Your task to perform on an android device: check out phone information Image 0: 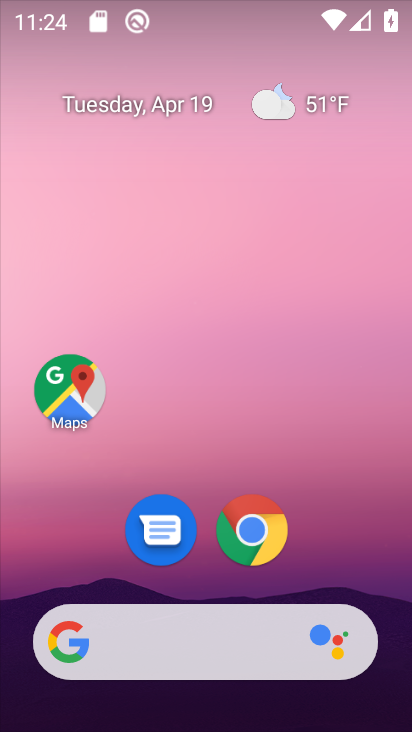
Step 0: drag from (183, 573) to (316, 0)
Your task to perform on an android device: check out phone information Image 1: 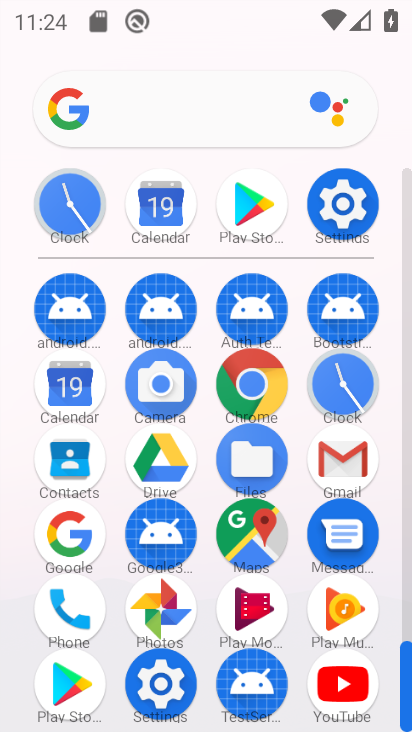
Step 1: click (340, 209)
Your task to perform on an android device: check out phone information Image 2: 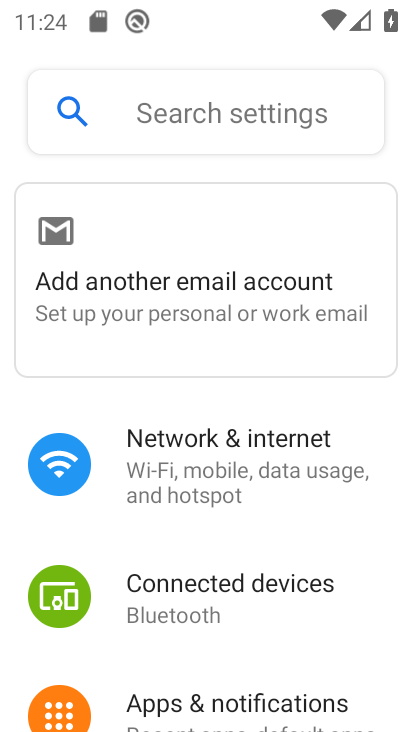
Step 2: drag from (214, 652) to (357, 179)
Your task to perform on an android device: check out phone information Image 3: 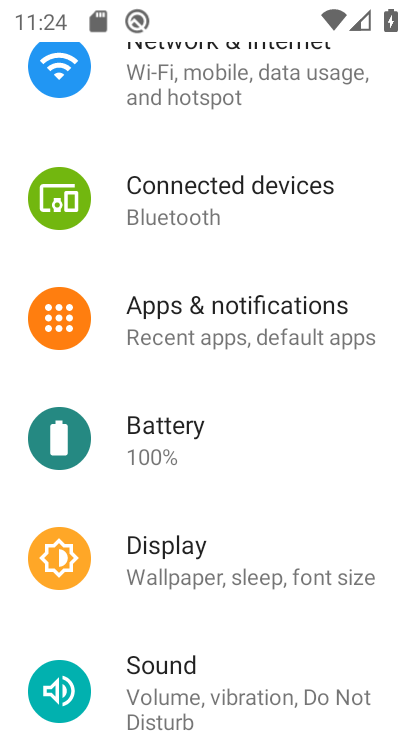
Step 3: drag from (254, 634) to (381, 142)
Your task to perform on an android device: check out phone information Image 4: 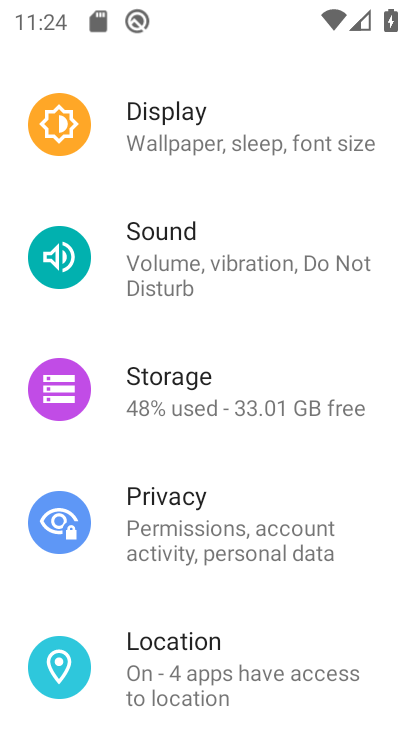
Step 4: drag from (248, 649) to (379, 167)
Your task to perform on an android device: check out phone information Image 5: 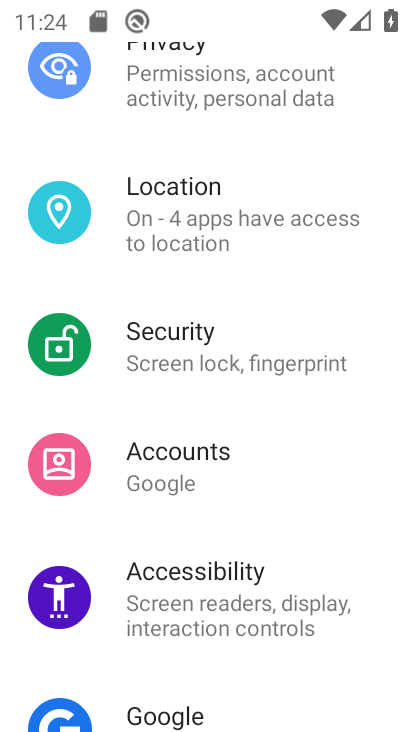
Step 5: drag from (290, 628) to (384, 288)
Your task to perform on an android device: check out phone information Image 6: 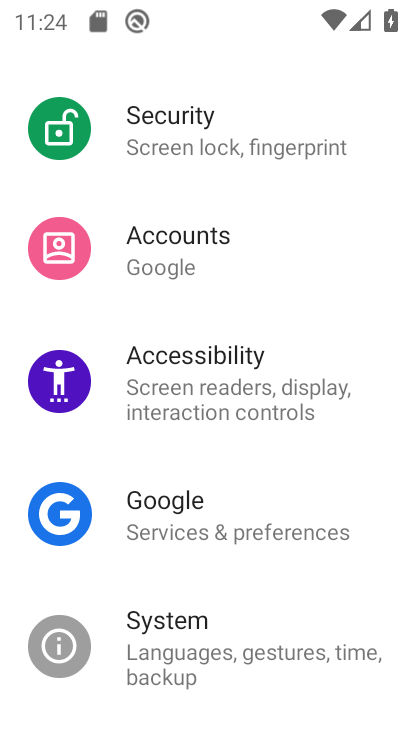
Step 6: drag from (259, 590) to (378, 163)
Your task to perform on an android device: check out phone information Image 7: 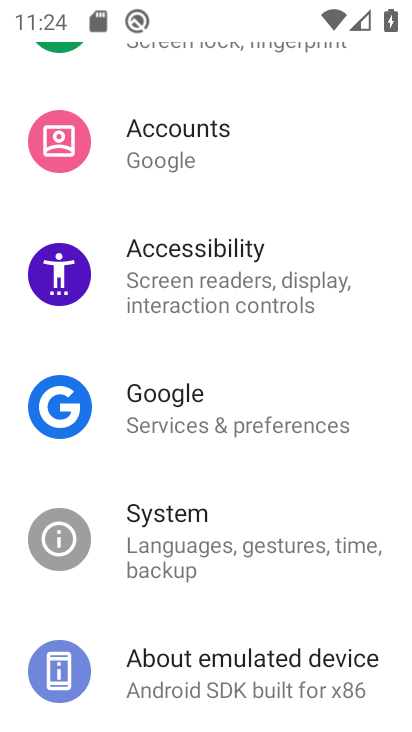
Step 7: click (224, 662)
Your task to perform on an android device: check out phone information Image 8: 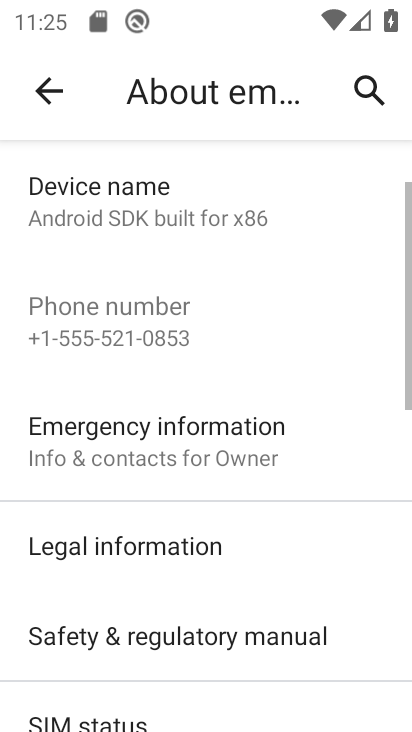
Step 8: task complete